Your task to perform on an android device: turn smart compose on in the gmail app Image 0: 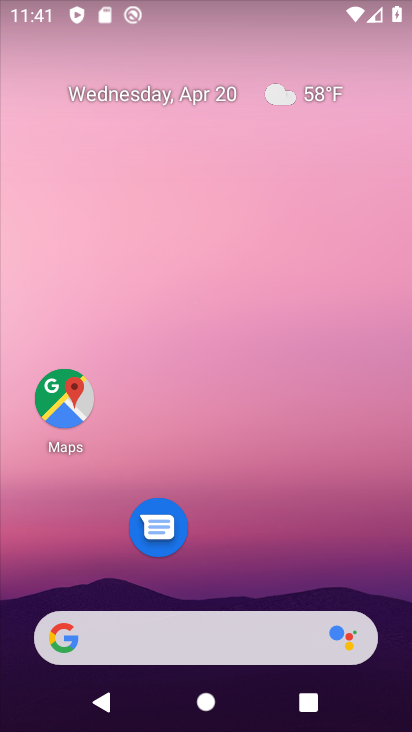
Step 0: drag from (225, 665) to (226, 131)
Your task to perform on an android device: turn smart compose on in the gmail app Image 1: 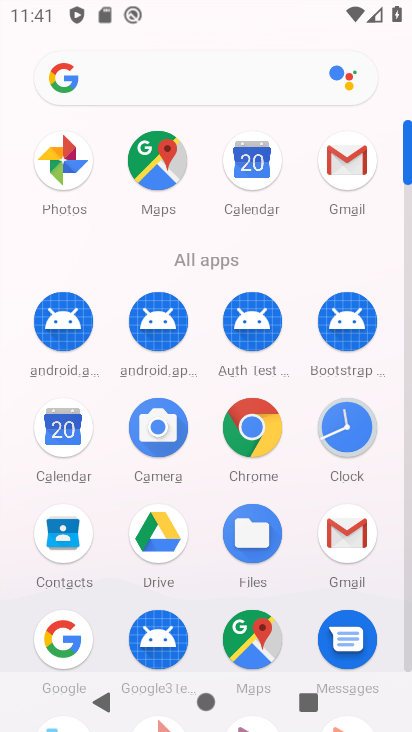
Step 1: click (341, 165)
Your task to perform on an android device: turn smart compose on in the gmail app Image 2: 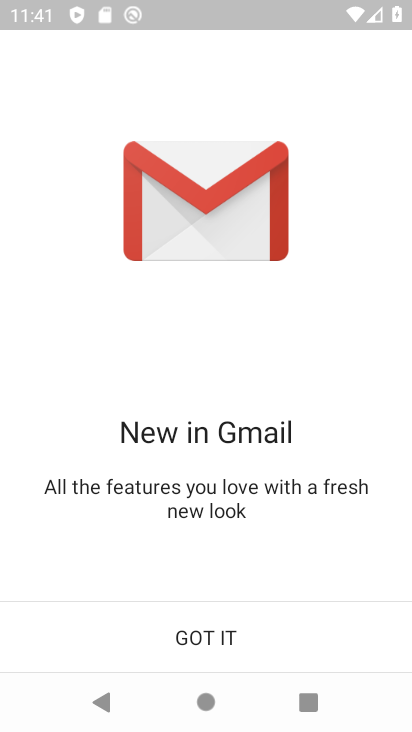
Step 2: click (215, 624)
Your task to perform on an android device: turn smart compose on in the gmail app Image 3: 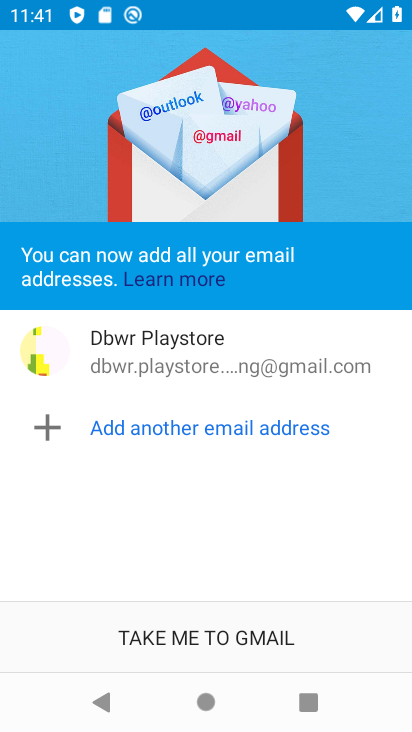
Step 3: click (214, 635)
Your task to perform on an android device: turn smart compose on in the gmail app Image 4: 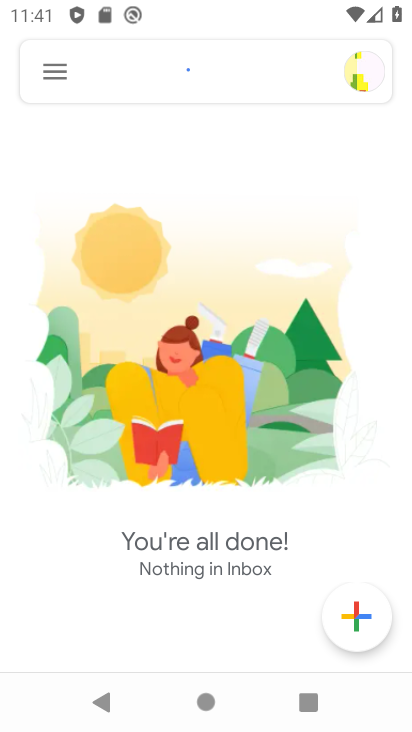
Step 4: click (55, 71)
Your task to perform on an android device: turn smart compose on in the gmail app Image 5: 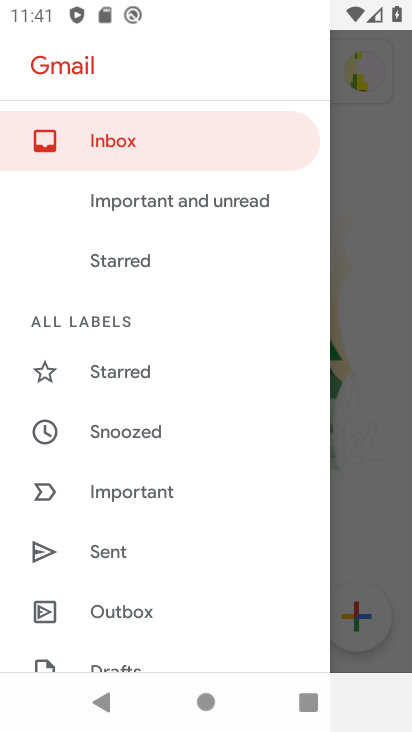
Step 5: drag from (165, 618) to (174, 128)
Your task to perform on an android device: turn smart compose on in the gmail app Image 6: 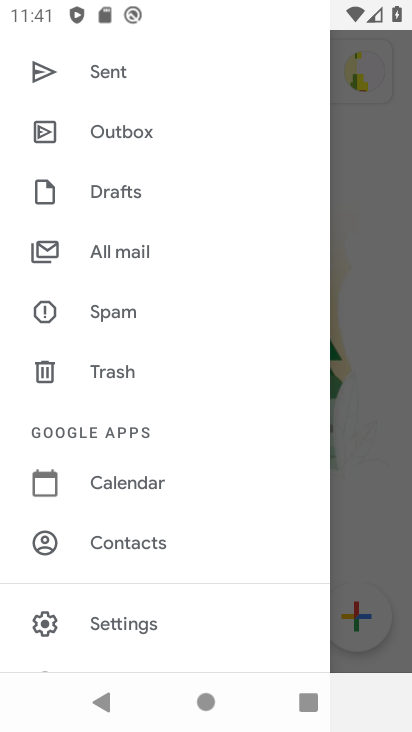
Step 6: drag from (139, 609) to (132, 154)
Your task to perform on an android device: turn smart compose on in the gmail app Image 7: 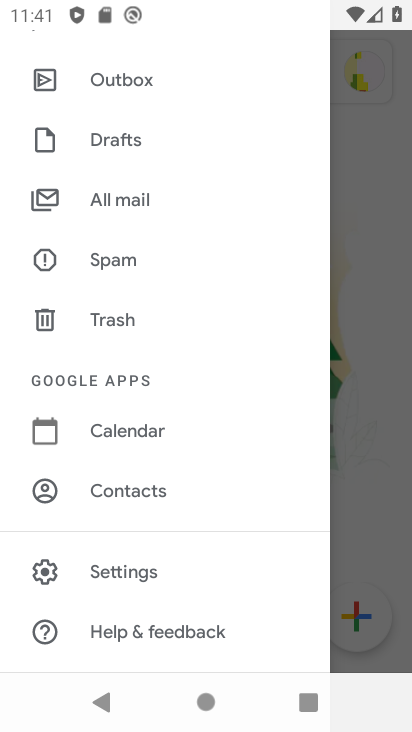
Step 7: click (125, 573)
Your task to perform on an android device: turn smart compose on in the gmail app Image 8: 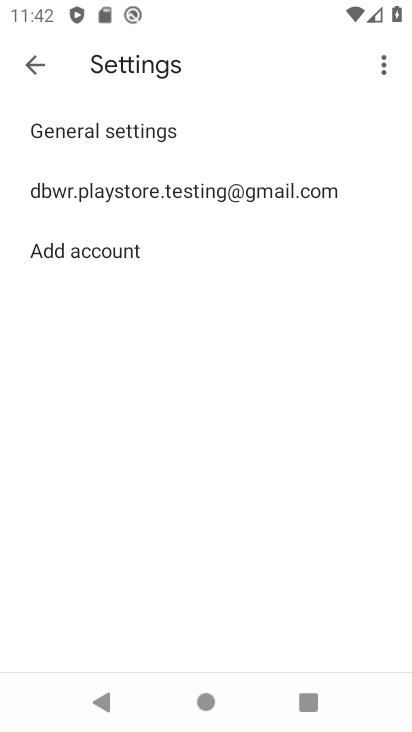
Step 8: click (171, 185)
Your task to perform on an android device: turn smart compose on in the gmail app Image 9: 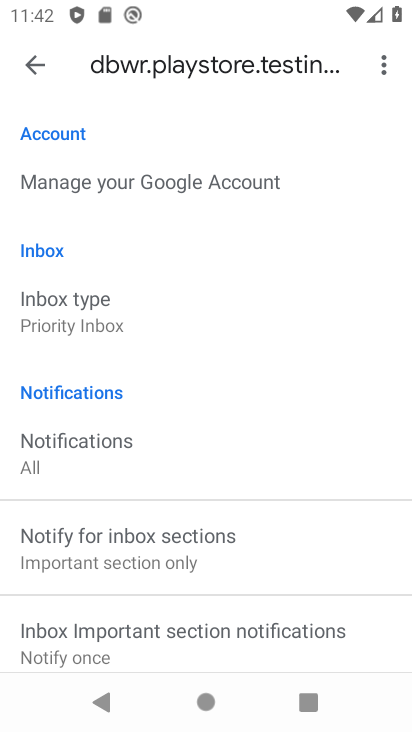
Step 9: task complete